Your task to perform on an android device: check battery use Image 0: 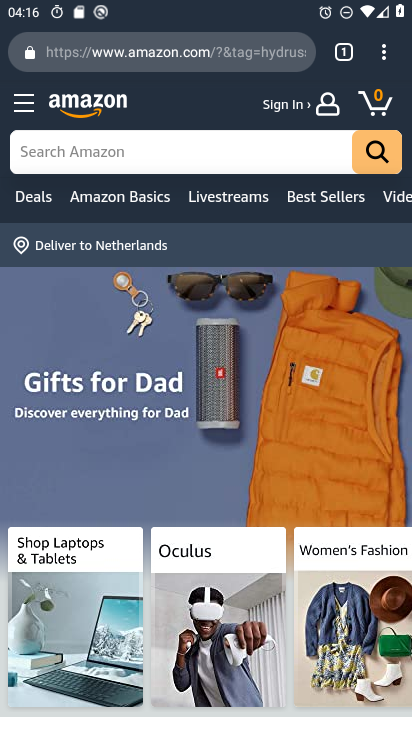
Step 0: press home button
Your task to perform on an android device: check battery use Image 1: 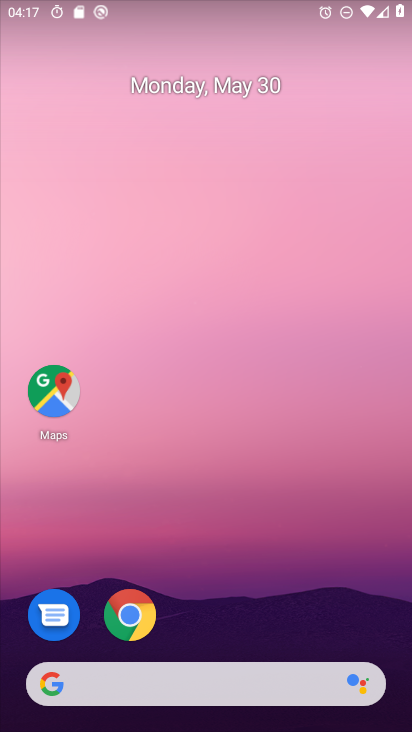
Step 1: drag from (241, 592) to (189, 65)
Your task to perform on an android device: check battery use Image 2: 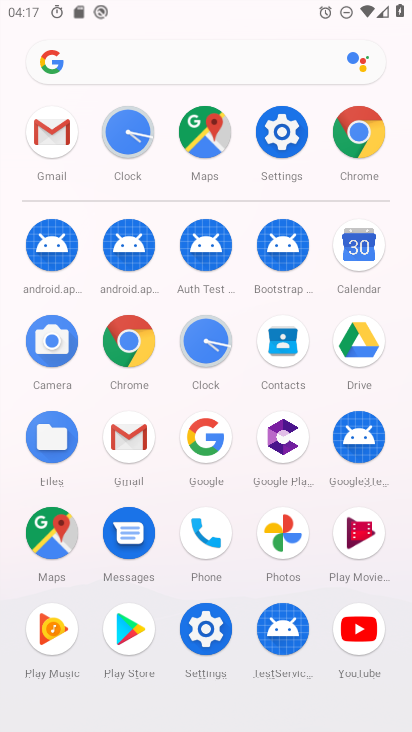
Step 2: click (278, 132)
Your task to perform on an android device: check battery use Image 3: 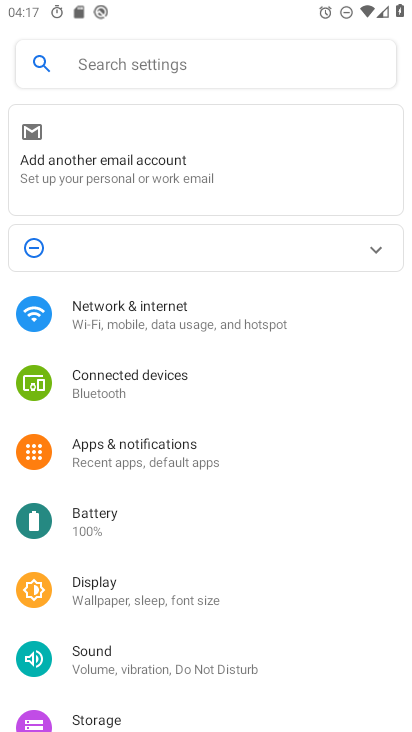
Step 3: drag from (163, 478) to (186, 386)
Your task to perform on an android device: check battery use Image 4: 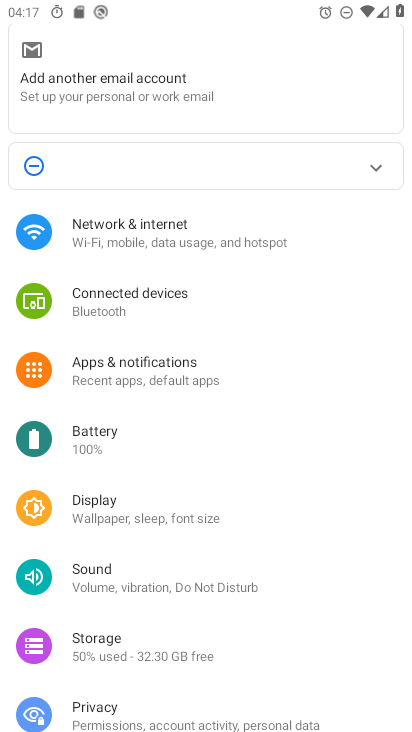
Step 4: click (113, 430)
Your task to perform on an android device: check battery use Image 5: 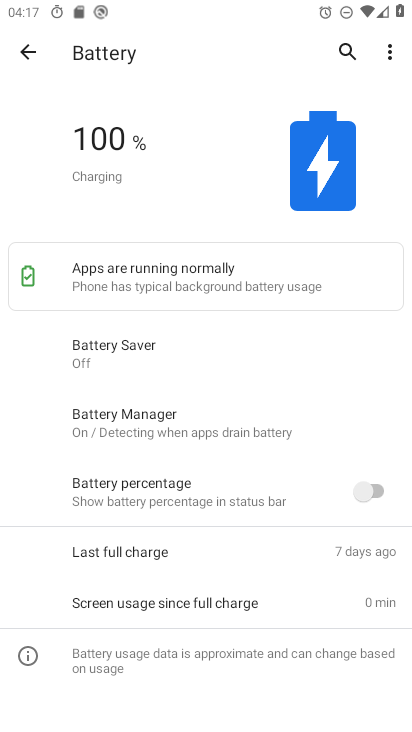
Step 5: click (385, 51)
Your task to perform on an android device: check battery use Image 6: 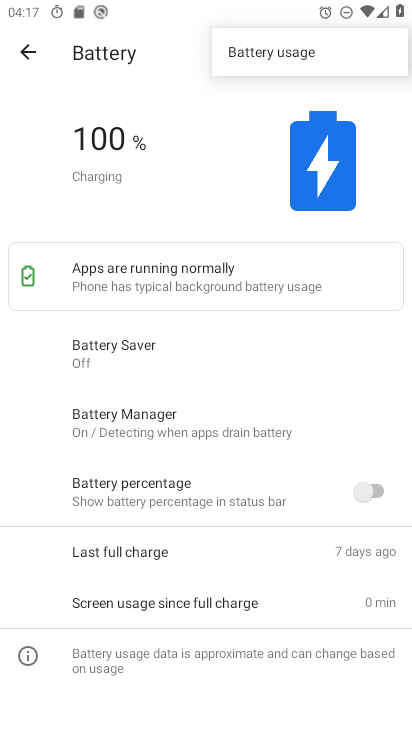
Step 6: click (253, 63)
Your task to perform on an android device: check battery use Image 7: 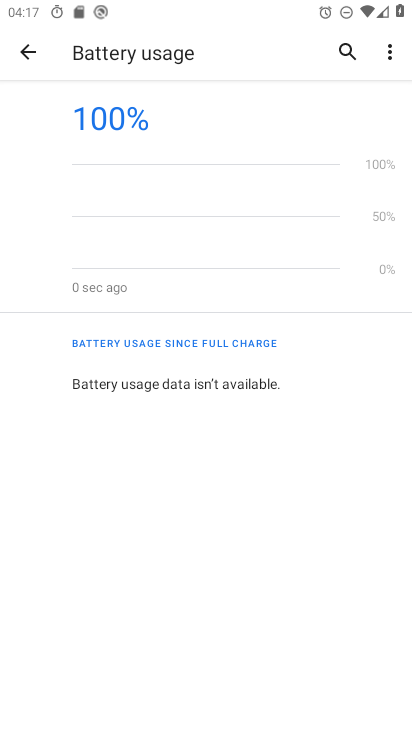
Step 7: task complete